Your task to perform on an android device: Set the phone to "Do not disturb". Image 0: 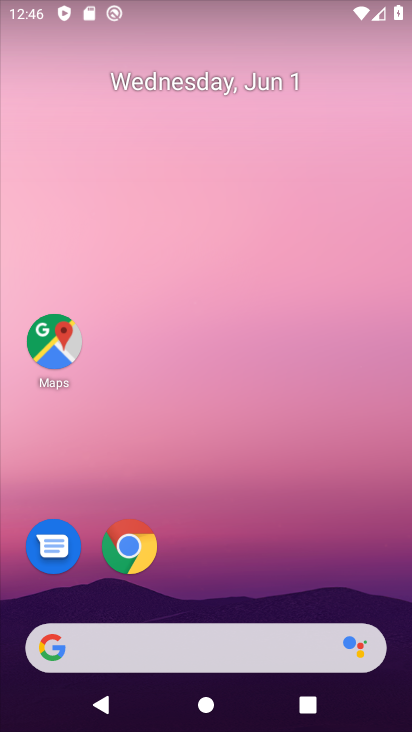
Step 0: drag from (193, 495) to (92, 195)
Your task to perform on an android device: Set the phone to "Do not disturb". Image 1: 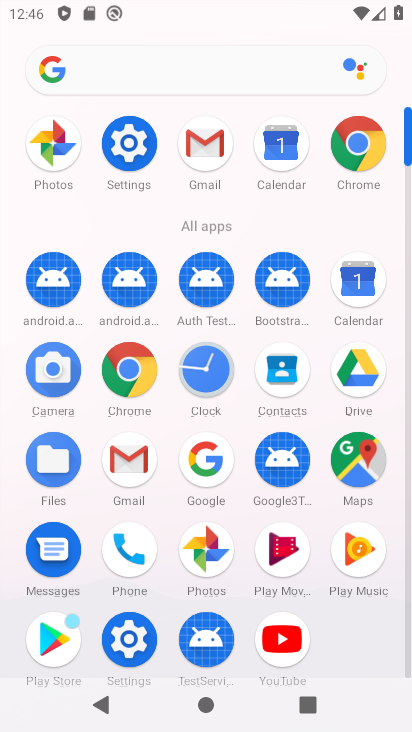
Step 1: click (131, 621)
Your task to perform on an android device: Set the phone to "Do not disturb". Image 2: 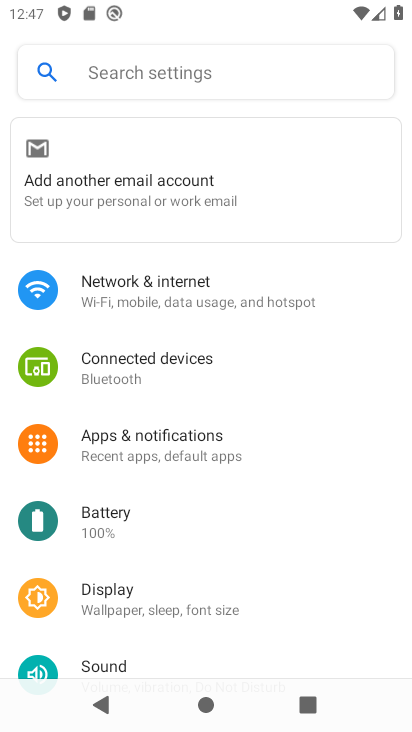
Step 2: drag from (149, 609) to (171, 307)
Your task to perform on an android device: Set the phone to "Do not disturb". Image 3: 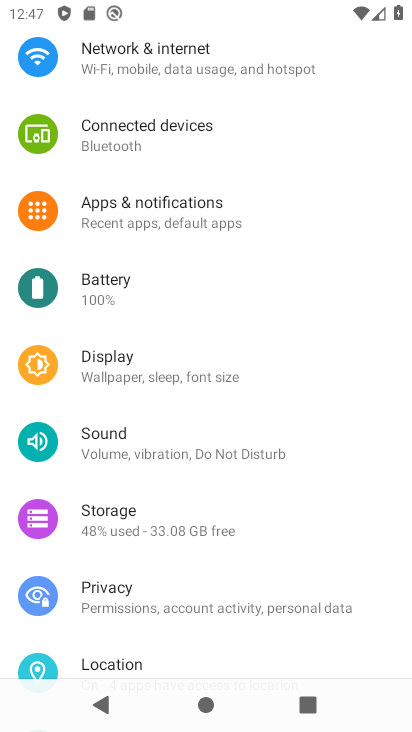
Step 3: click (147, 446)
Your task to perform on an android device: Set the phone to "Do not disturb". Image 4: 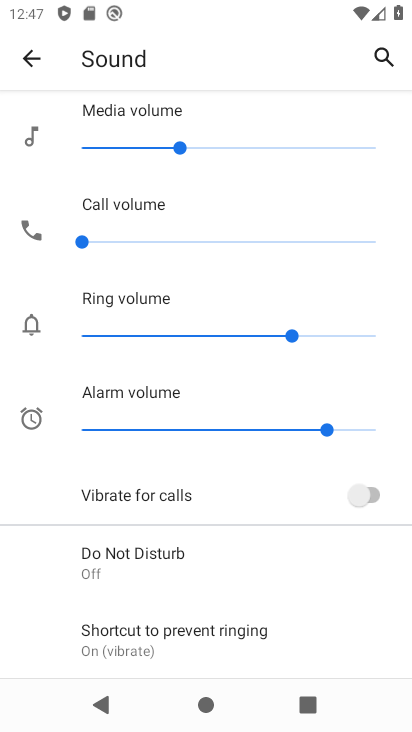
Step 4: click (149, 565)
Your task to perform on an android device: Set the phone to "Do not disturb". Image 5: 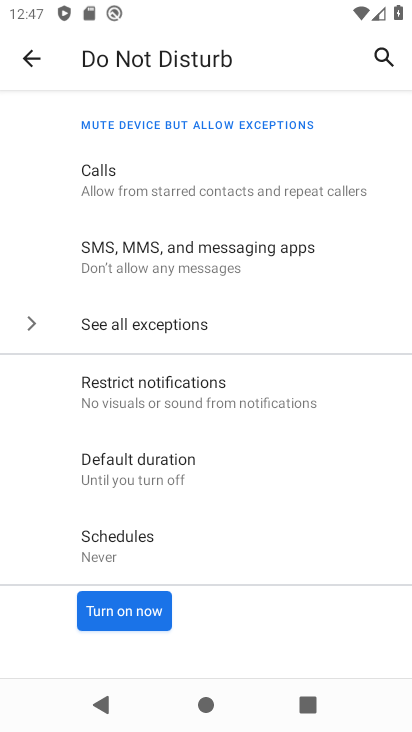
Step 5: click (124, 615)
Your task to perform on an android device: Set the phone to "Do not disturb". Image 6: 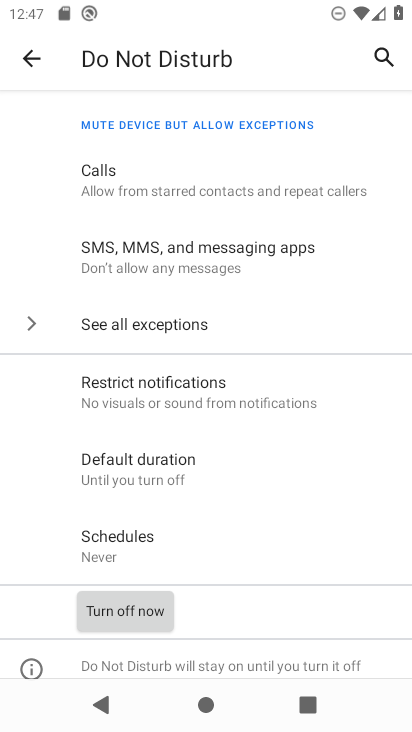
Step 6: task complete